Your task to perform on an android device: turn on the 24-hour format for clock Image 0: 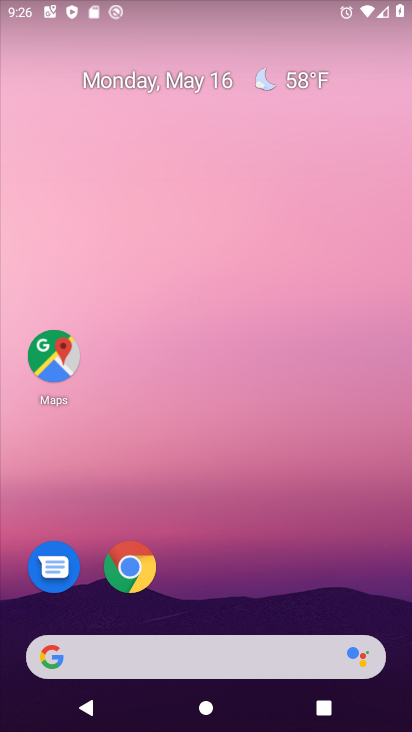
Step 0: drag from (250, 609) to (254, 239)
Your task to perform on an android device: turn on the 24-hour format for clock Image 1: 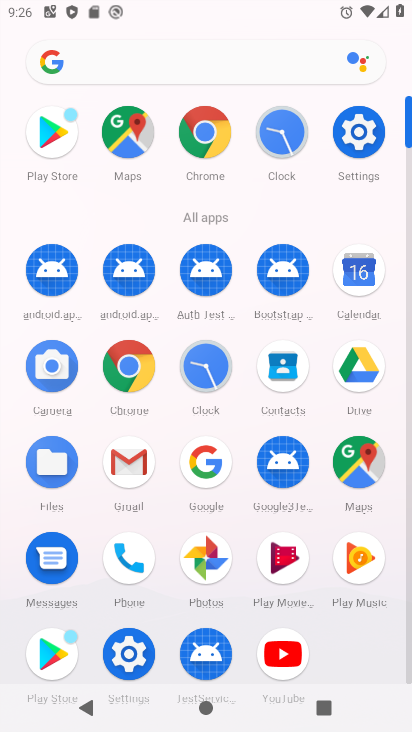
Step 1: click (205, 365)
Your task to perform on an android device: turn on the 24-hour format for clock Image 2: 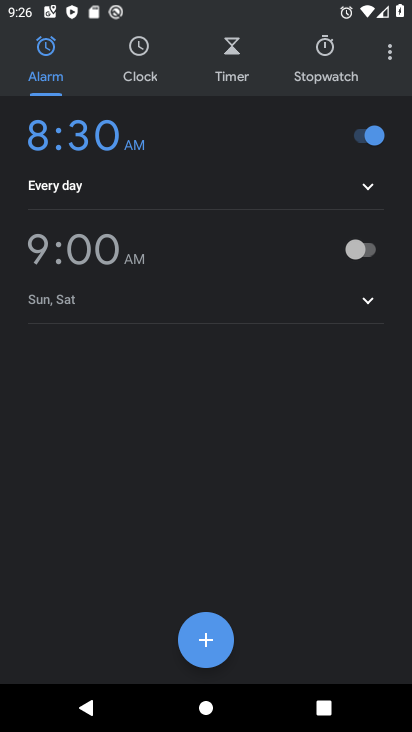
Step 2: click (138, 42)
Your task to perform on an android device: turn on the 24-hour format for clock Image 3: 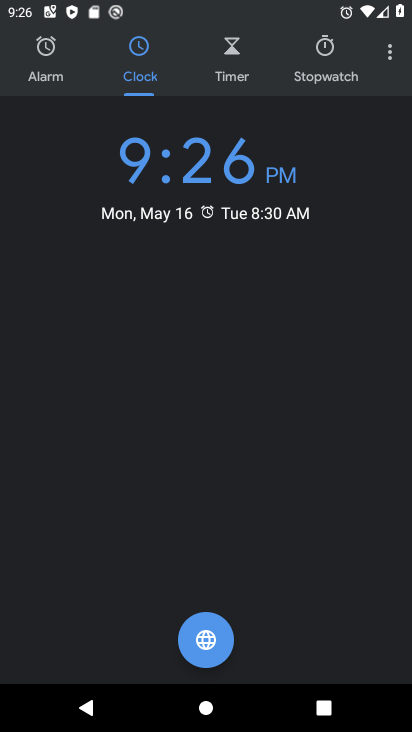
Step 3: task complete